Your task to perform on an android device: check battery use Image 0: 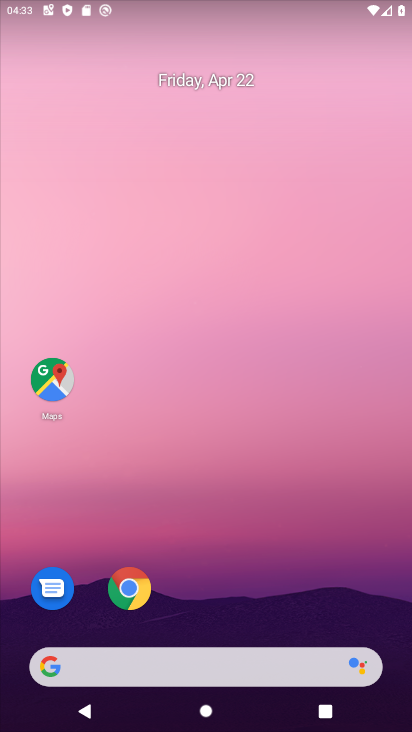
Step 0: drag from (255, 542) to (261, 18)
Your task to perform on an android device: check battery use Image 1: 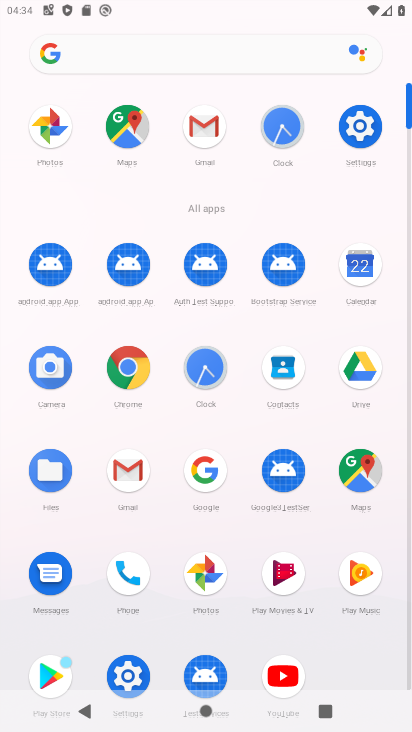
Step 1: click (356, 133)
Your task to perform on an android device: check battery use Image 2: 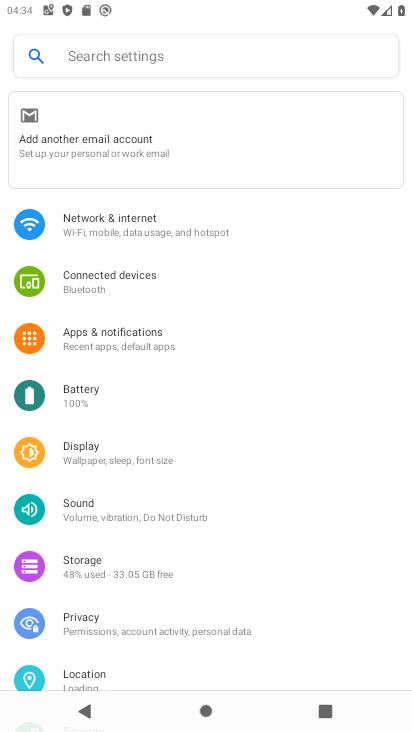
Step 2: click (97, 392)
Your task to perform on an android device: check battery use Image 3: 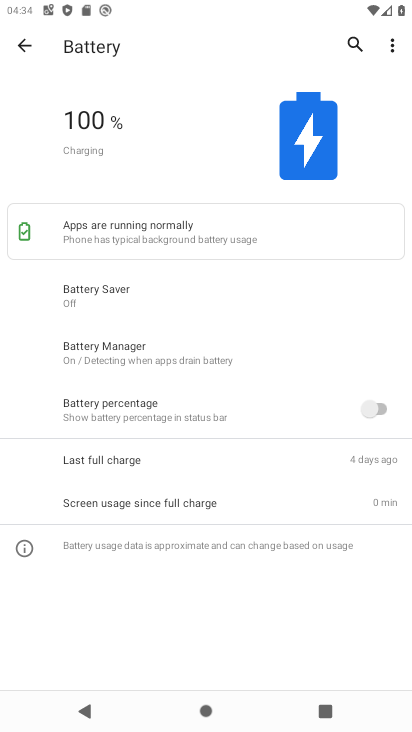
Step 3: click (391, 48)
Your task to perform on an android device: check battery use Image 4: 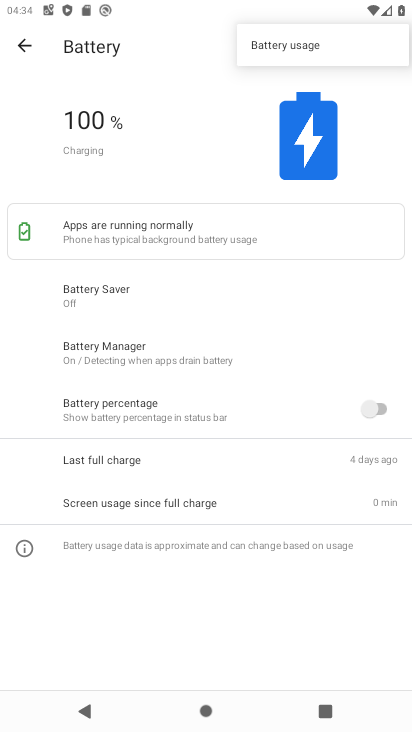
Step 4: click (313, 37)
Your task to perform on an android device: check battery use Image 5: 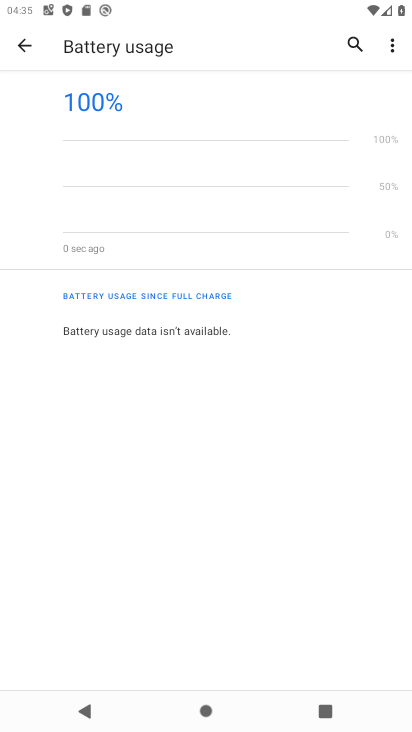
Step 5: task complete